Your task to perform on an android device: change the clock display to show seconds Image 0: 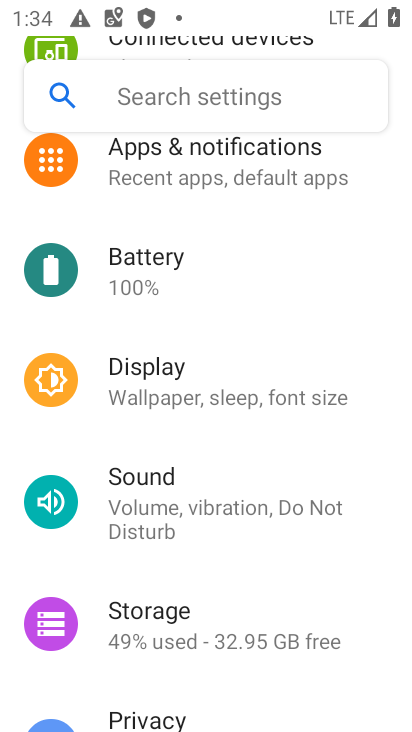
Step 0: press home button
Your task to perform on an android device: change the clock display to show seconds Image 1: 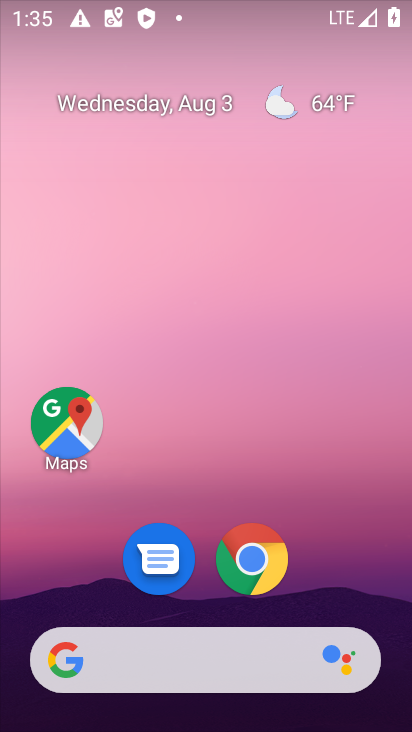
Step 1: drag from (205, 471) to (203, 155)
Your task to perform on an android device: change the clock display to show seconds Image 2: 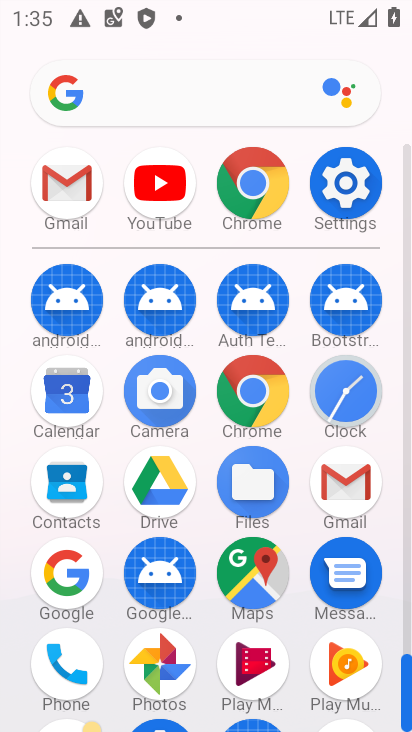
Step 2: click (352, 387)
Your task to perform on an android device: change the clock display to show seconds Image 3: 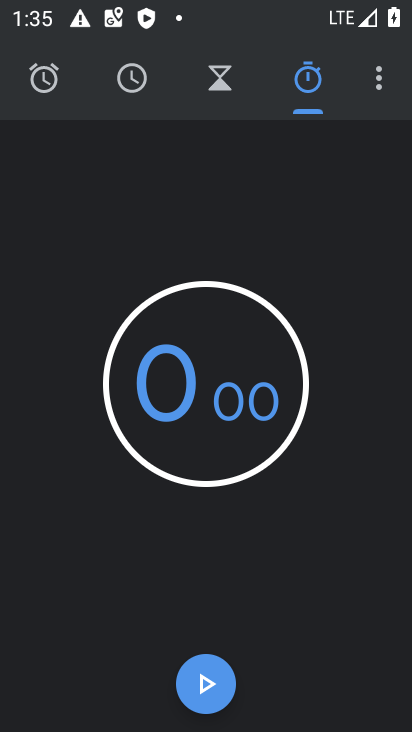
Step 3: click (377, 82)
Your task to perform on an android device: change the clock display to show seconds Image 4: 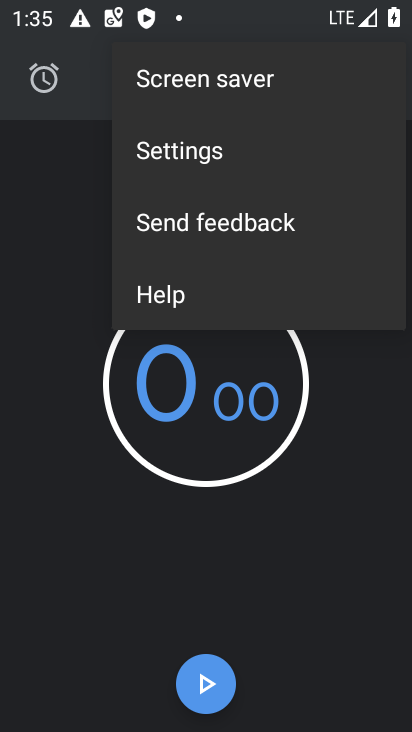
Step 4: click (205, 144)
Your task to perform on an android device: change the clock display to show seconds Image 5: 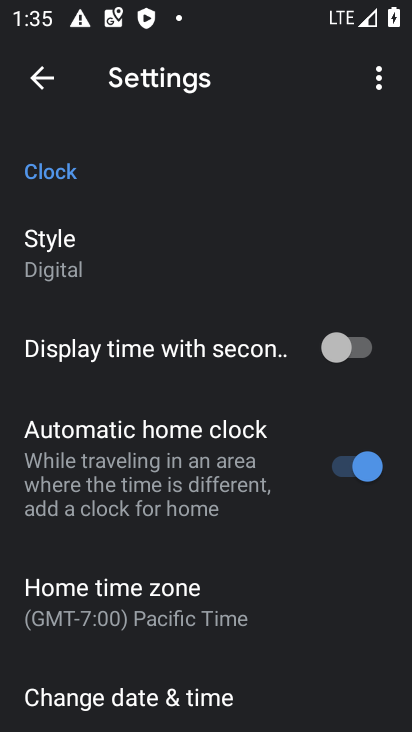
Step 5: click (363, 345)
Your task to perform on an android device: change the clock display to show seconds Image 6: 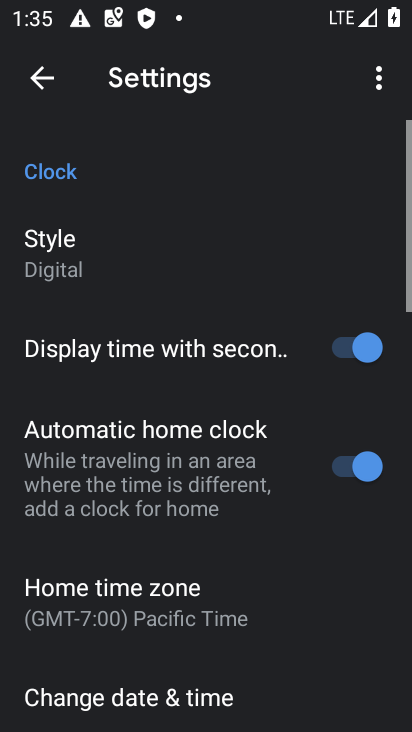
Step 6: task complete